Your task to perform on an android device: remove spam from my inbox in the gmail app Image 0: 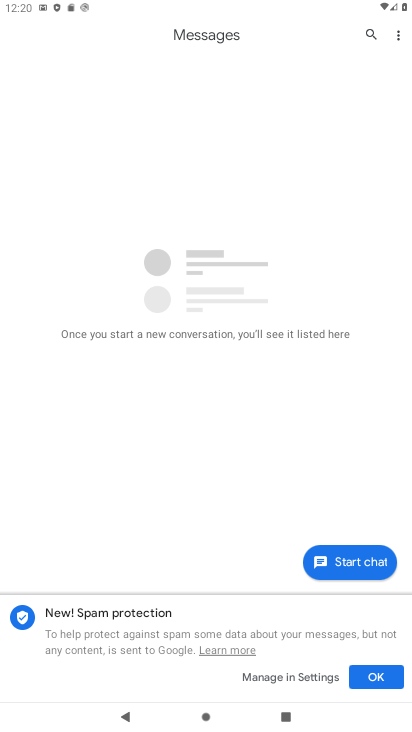
Step 0: press home button
Your task to perform on an android device: remove spam from my inbox in the gmail app Image 1: 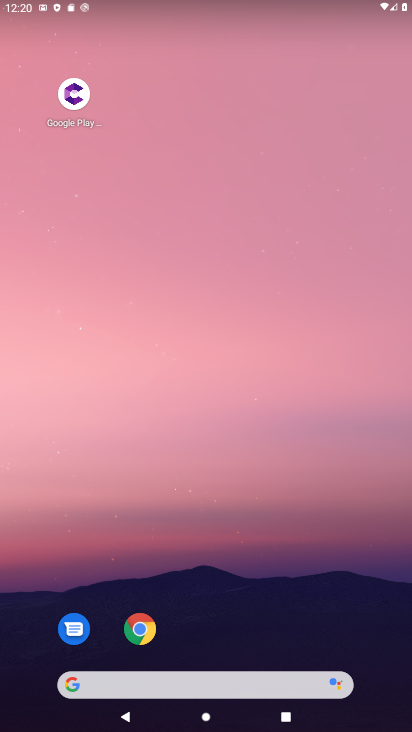
Step 1: drag from (355, 651) to (242, 135)
Your task to perform on an android device: remove spam from my inbox in the gmail app Image 2: 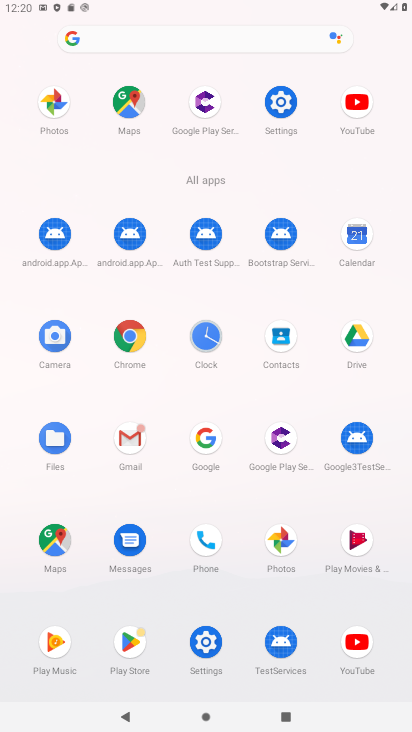
Step 2: click (129, 451)
Your task to perform on an android device: remove spam from my inbox in the gmail app Image 3: 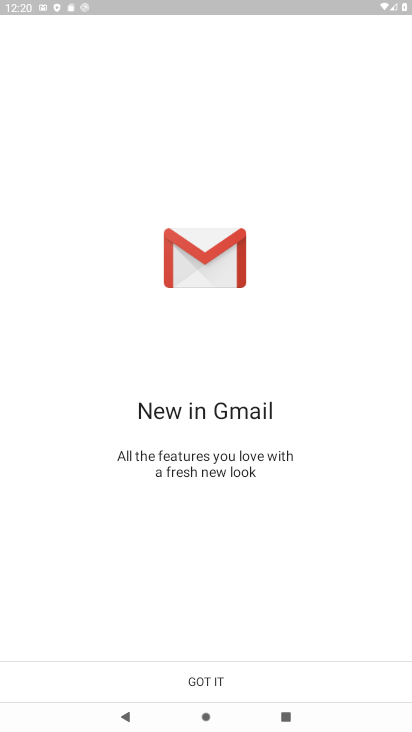
Step 3: click (216, 676)
Your task to perform on an android device: remove spam from my inbox in the gmail app Image 4: 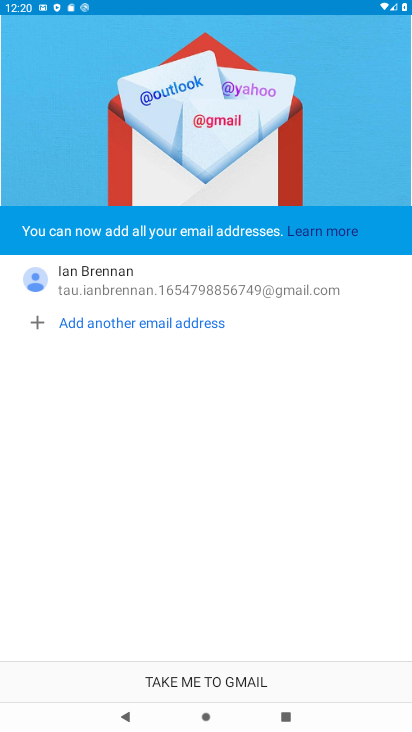
Step 4: click (224, 675)
Your task to perform on an android device: remove spam from my inbox in the gmail app Image 5: 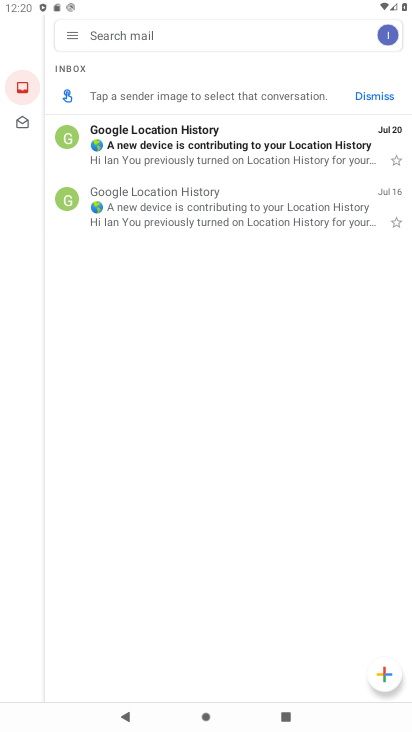
Step 5: click (75, 36)
Your task to perform on an android device: remove spam from my inbox in the gmail app Image 6: 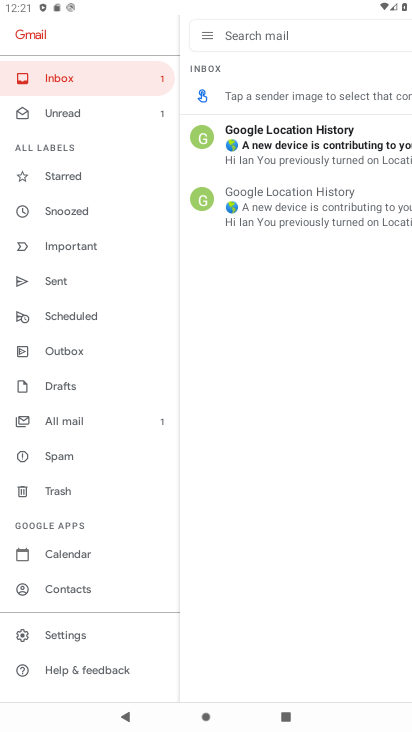
Step 6: drag from (104, 636) to (103, 558)
Your task to perform on an android device: remove spam from my inbox in the gmail app Image 7: 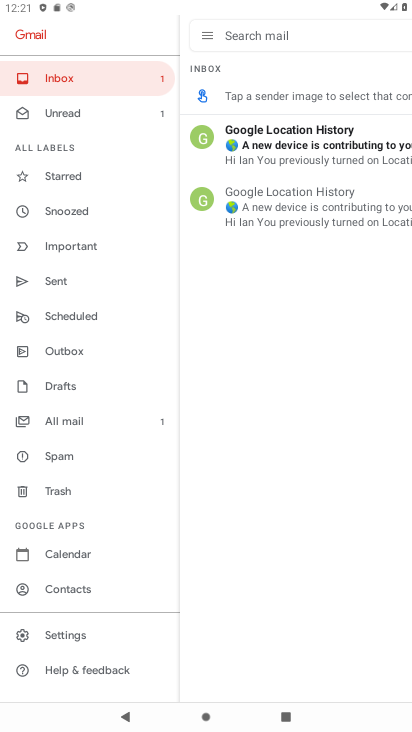
Step 7: click (75, 453)
Your task to perform on an android device: remove spam from my inbox in the gmail app Image 8: 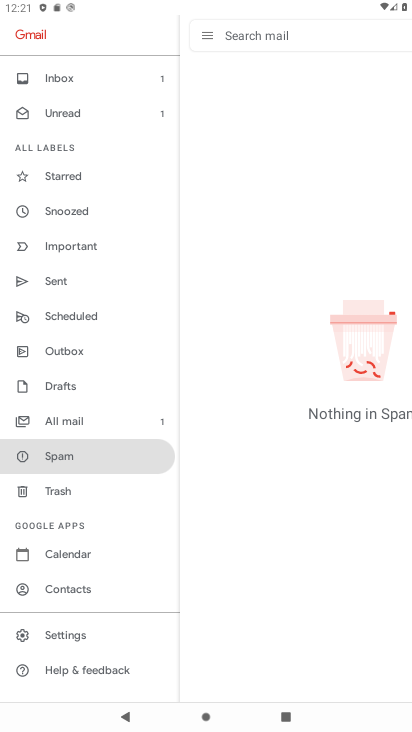
Step 8: task complete